Your task to perform on an android device: toggle wifi Image 0: 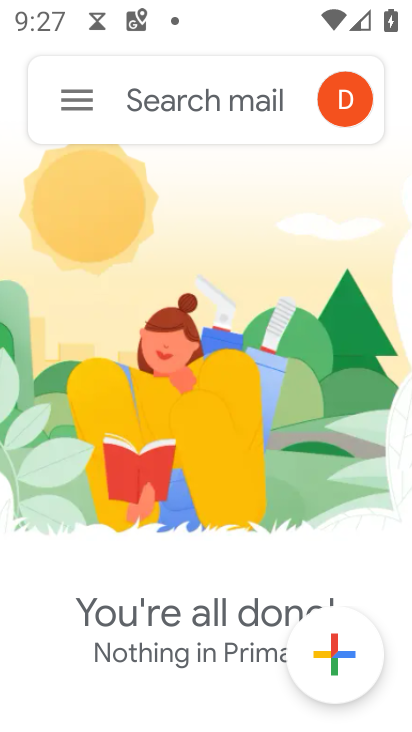
Step 0: press home button
Your task to perform on an android device: toggle wifi Image 1: 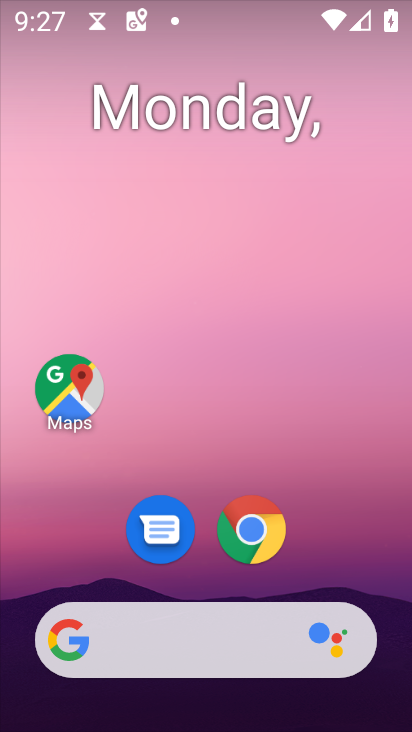
Step 1: drag from (313, 662) to (214, 82)
Your task to perform on an android device: toggle wifi Image 2: 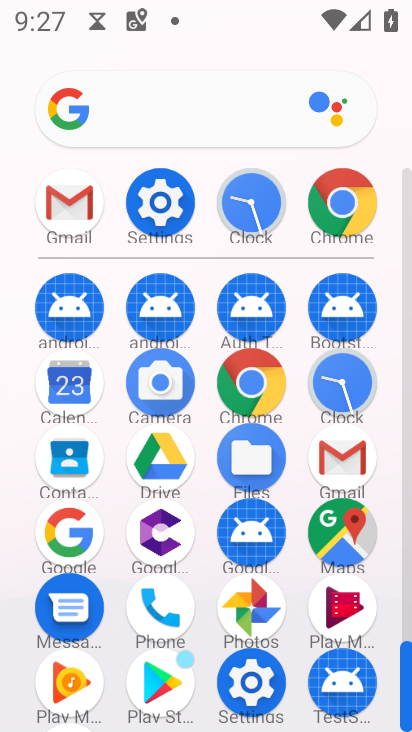
Step 2: click (169, 201)
Your task to perform on an android device: toggle wifi Image 3: 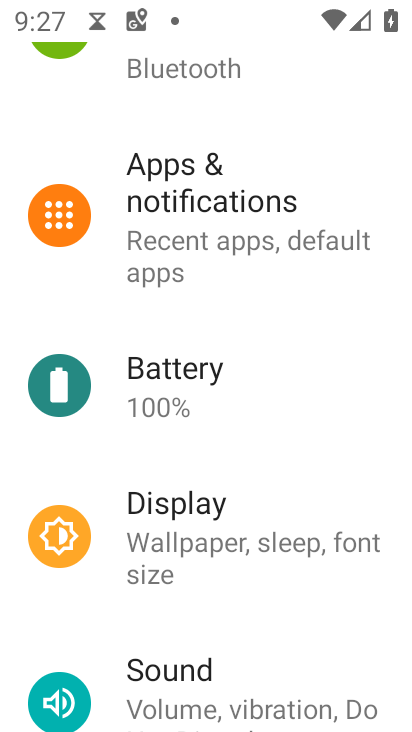
Step 3: drag from (198, 149) to (202, 463)
Your task to perform on an android device: toggle wifi Image 4: 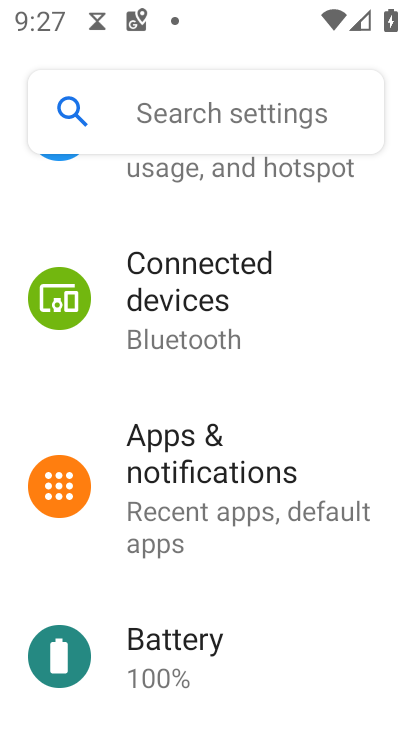
Step 4: drag from (207, 205) to (226, 468)
Your task to perform on an android device: toggle wifi Image 5: 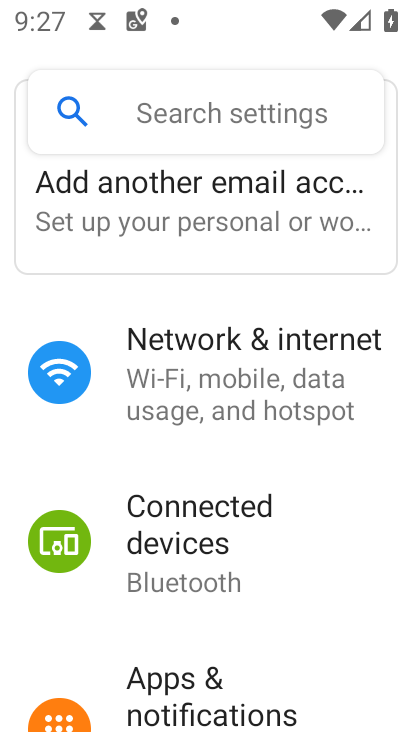
Step 5: drag from (218, 282) to (236, 592)
Your task to perform on an android device: toggle wifi Image 6: 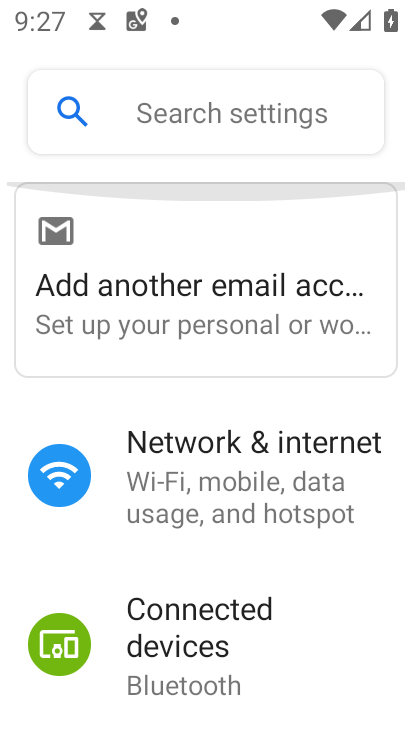
Step 6: drag from (240, 311) to (283, 551)
Your task to perform on an android device: toggle wifi Image 7: 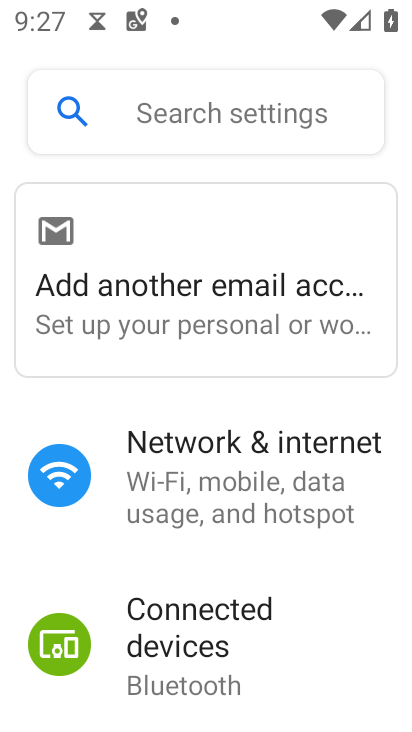
Step 7: click (240, 478)
Your task to perform on an android device: toggle wifi Image 8: 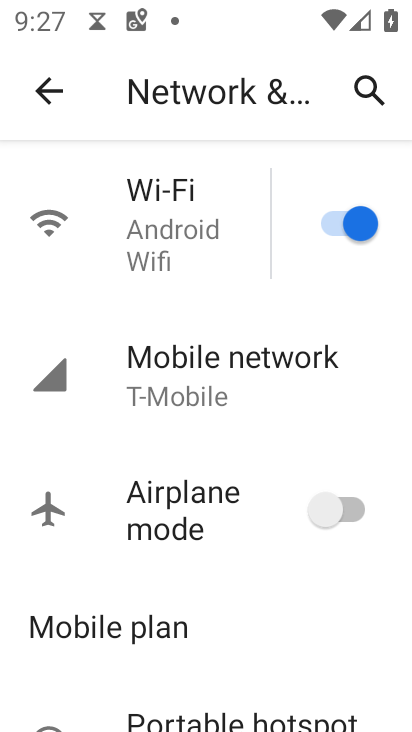
Step 8: click (356, 218)
Your task to perform on an android device: toggle wifi Image 9: 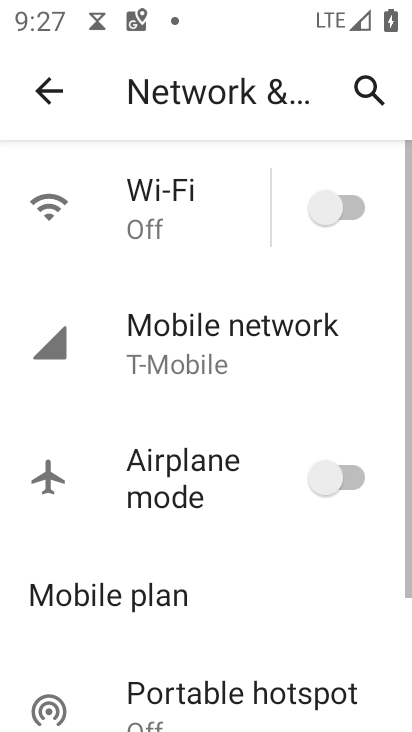
Step 9: task complete